Your task to perform on an android device: Open accessibility settings Image 0: 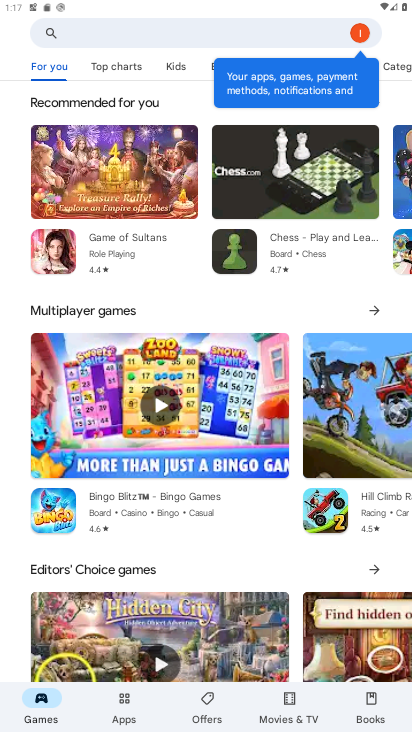
Step 0: drag from (257, 581) to (315, 373)
Your task to perform on an android device: Open accessibility settings Image 1: 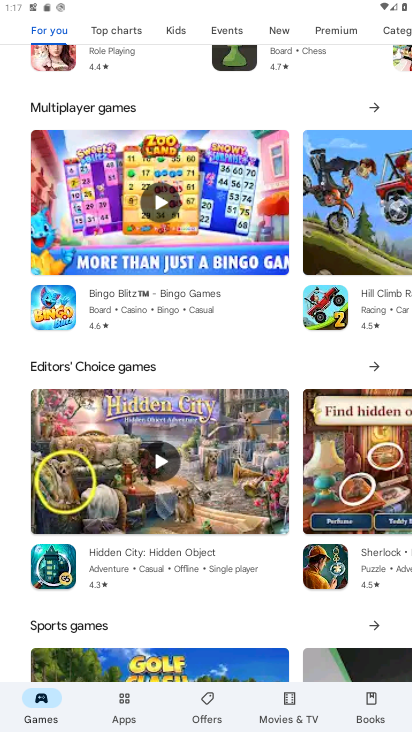
Step 1: drag from (249, 109) to (393, 551)
Your task to perform on an android device: Open accessibility settings Image 2: 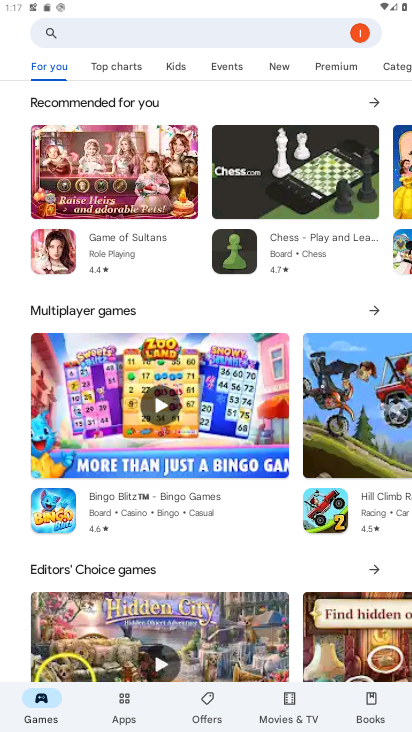
Step 2: press home button
Your task to perform on an android device: Open accessibility settings Image 3: 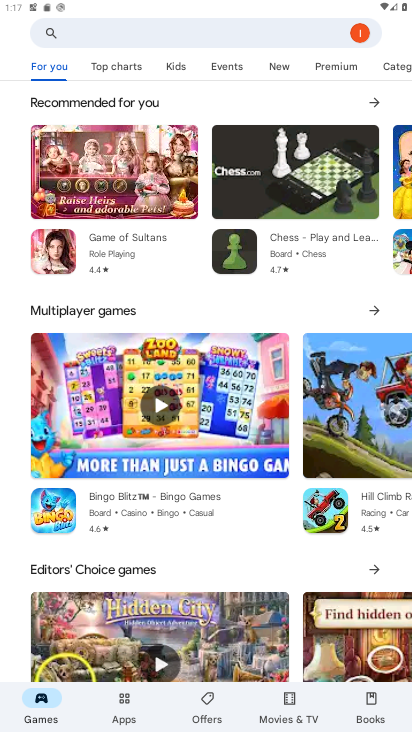
Step 3: press home button
Your task to perform on an android device: Open accessibility settings Image 4: 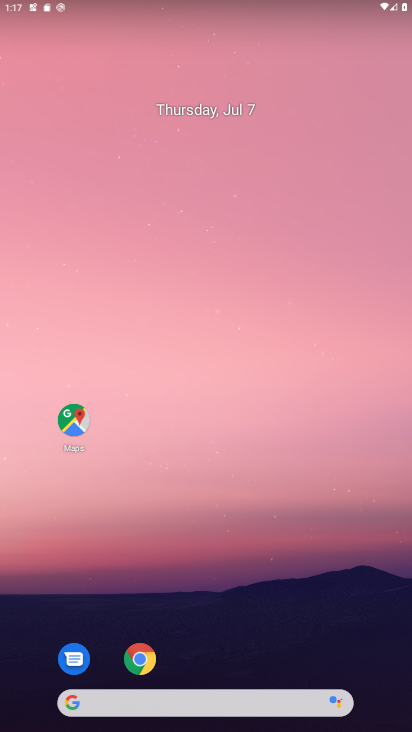
Step 4: drag from (197, 569) to (267, 133)
Your task to perform on an android device: Open accessibility settings Image 5: 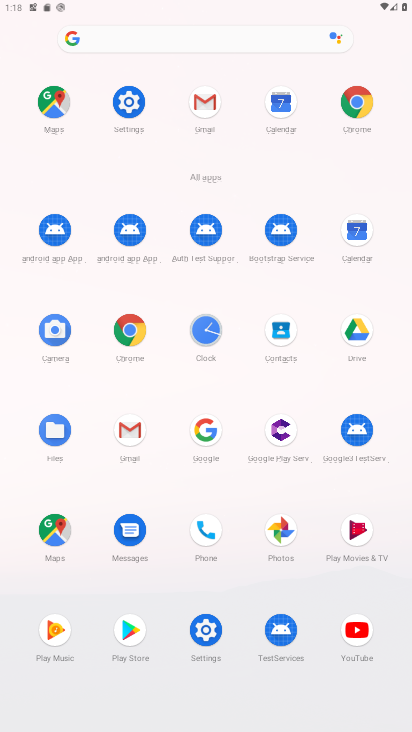
Step 5: click (127, 114)
Your task to perform on an android device: Open accessibility settings Image 6: 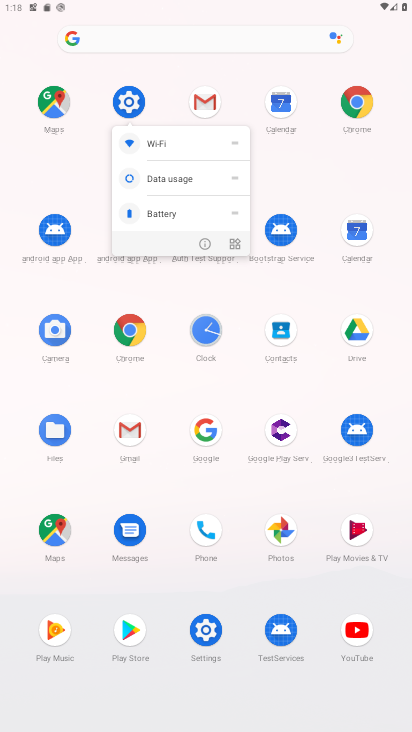
Step 6: click (202, 240)
Your task to perform on an android device: Open accessibility settings Image 7: 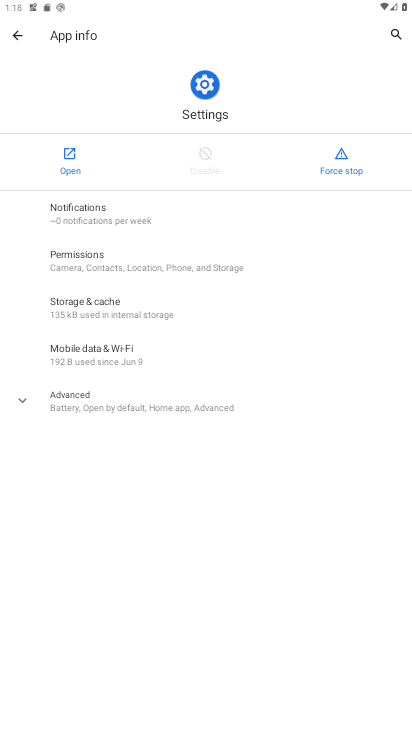
Step 7: click (68, 152)
Your task to perform on an android device: Open accessibility settings Image 8: 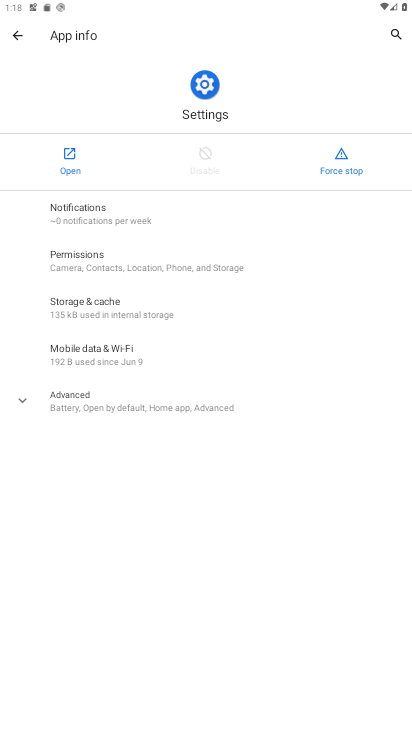
Step 8: click (68, 154)
Your task to perform on an android device: Open accessibility settings Image 9: 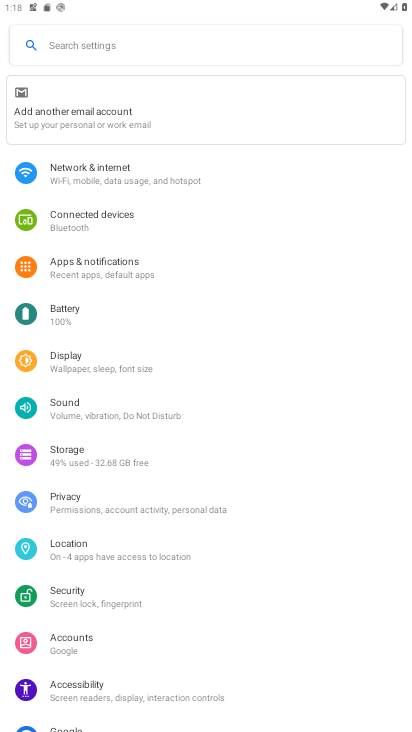
Step 9: drag from (119, 644) to (192, 318)
Your task to perform on an android device: Open accessibility settings Image 10: 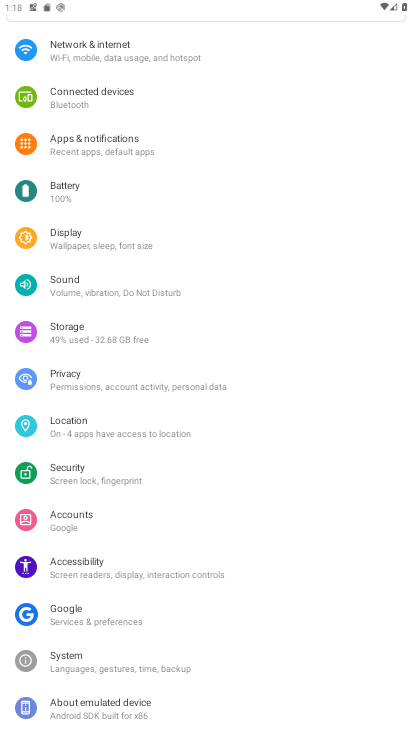
Step 10: click (110, 567)
Your task to perform on an android device: Open accessibility settings Image 11: 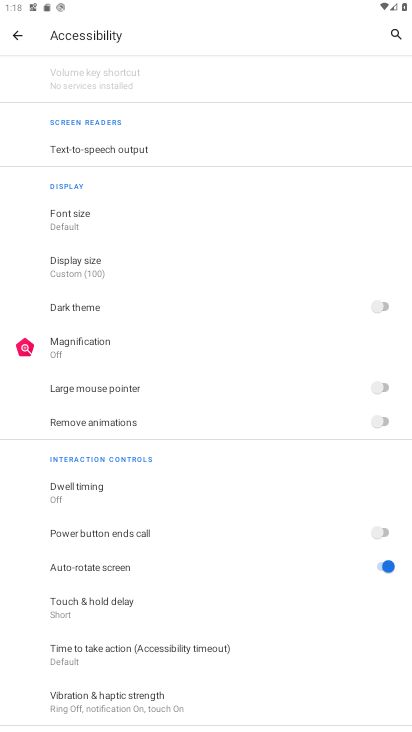
Step 11: task complete